Your task to perform on an android device: turn on location history Image 0: 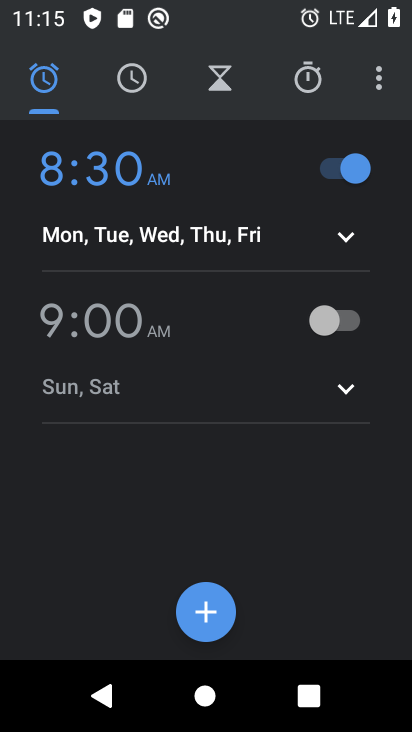
Step 0: press home button
Your task to perform on an android device: turn on location history Image 1: 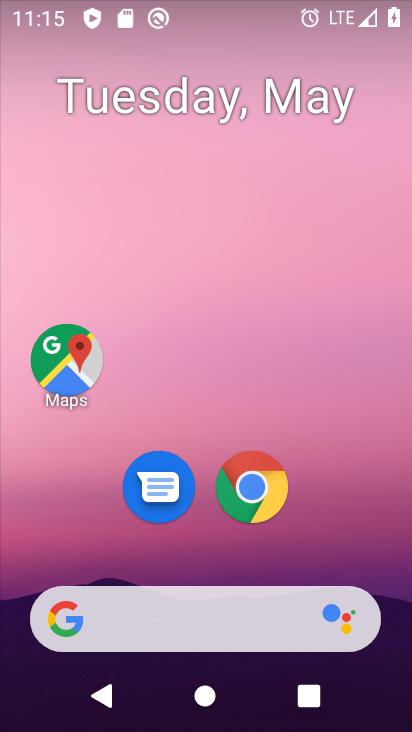
Step 1: drag from (233, 550) to (227, 374)
Your task to perform on an android device: turn on location history Image 2: 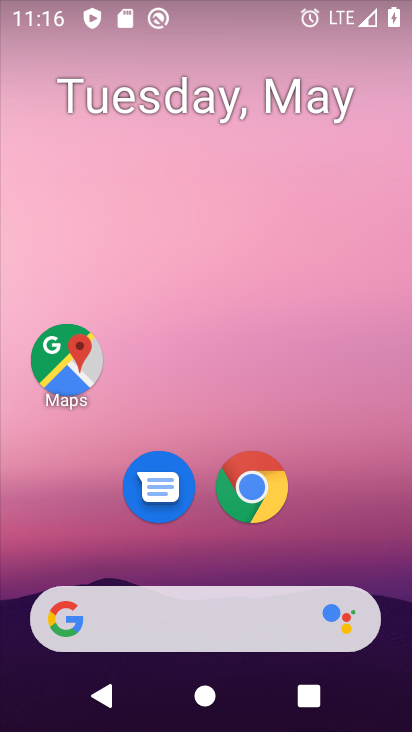
Step 2: drag from (222, 550) to (278, 244)
Your task to perform on an android device: turn on location history Image 3: 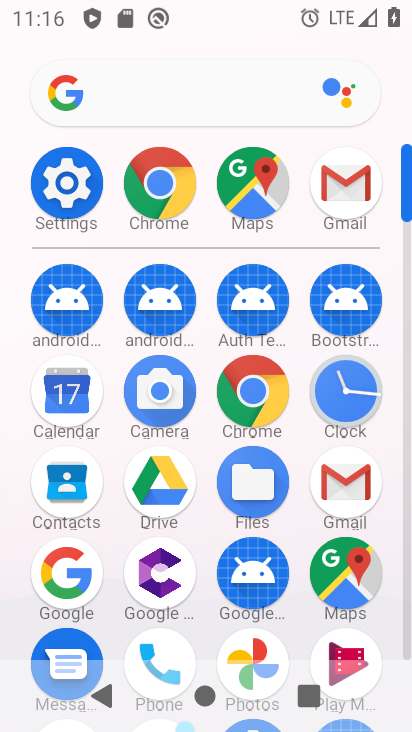
Step 3: click (64, 211)
Your task to perform on an android device: turn on location history Image 4: 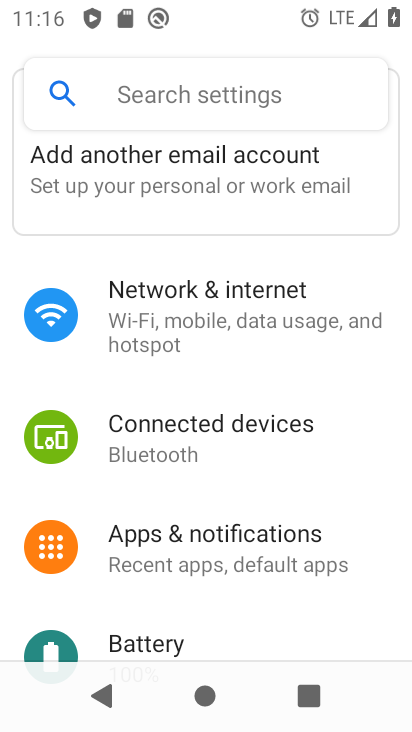
Step 4: drag from (198, 573) to (179, 0)
Your task to perform on an android device: turn on location history Image 5: 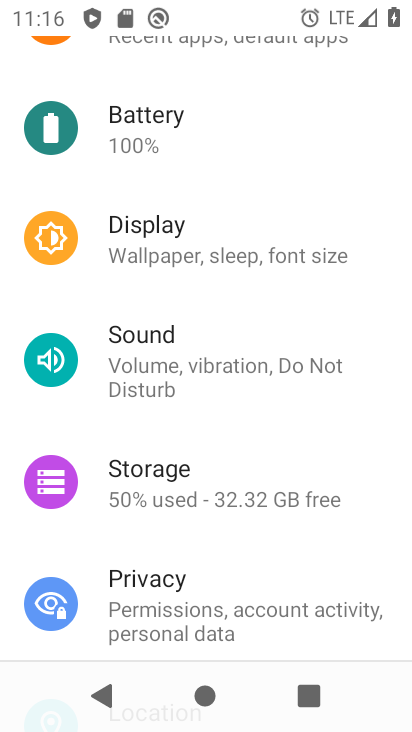
Step 5: drag from (213, 626) to (186, 15)
Your task to perform on an android device: turn on location history Image 6: 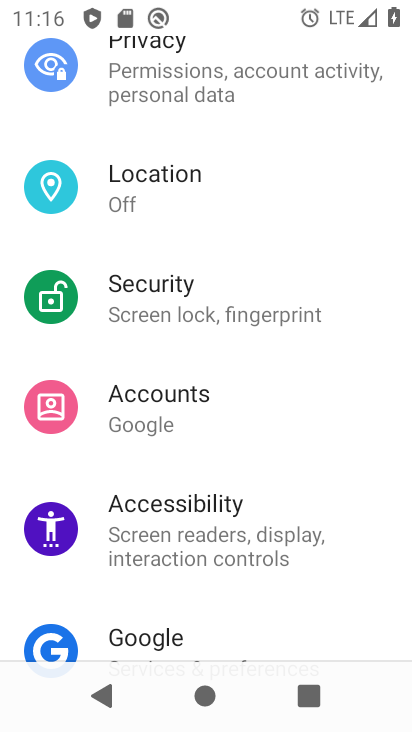
Step 6: click (182, 195)
Your task to perform on an android device: turn on location history Image 7: 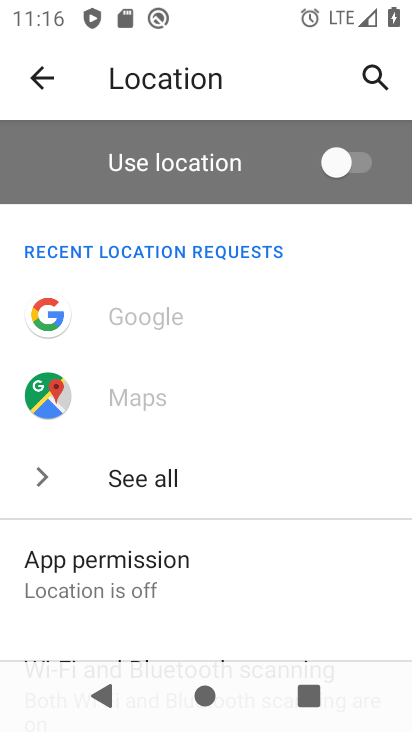
Step 7: drag from (156, 566) to (292, 84)
Your task to perform on an android device: turn on location history Image 8: 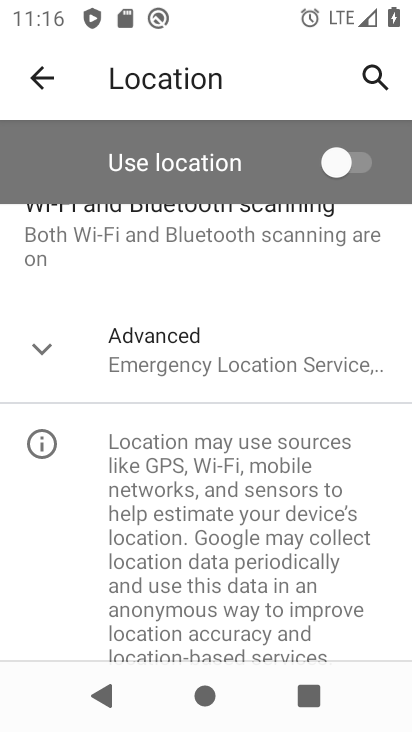
Step 8: click (167, 358)
Your task to perform on an android device: turn on location history Image 9: 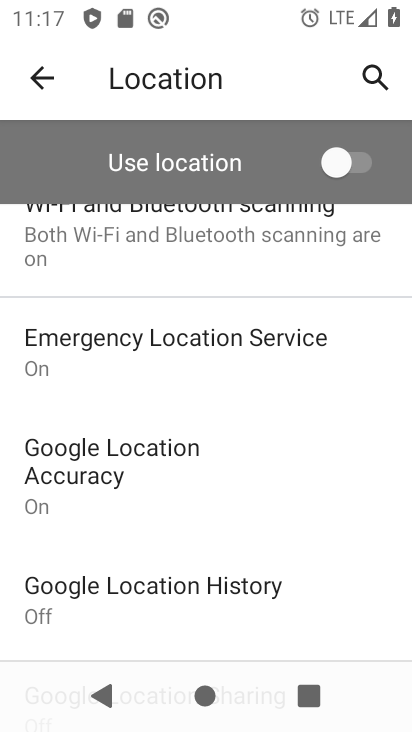
Step 9: click (203, 612)
Your task to perform on an android device: turn on location history Image 10: 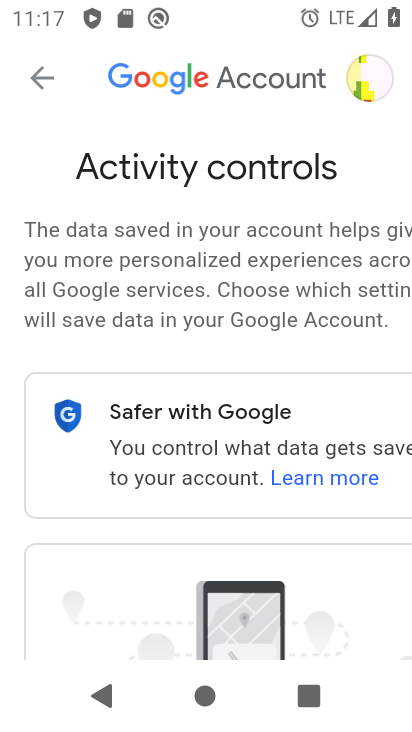
Step 10: drag from (233, 650) to (335, 103)
Your task to perform on an android device: turn on location history Image 11: 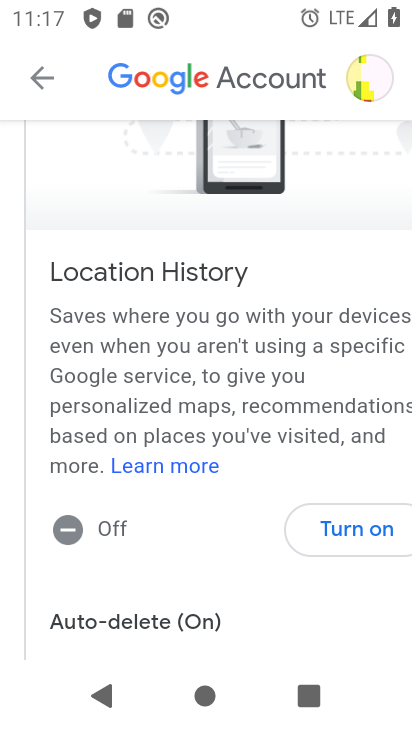
Step 11: click (362, 536)
Your task to perform on an android device: turn on location history Image 12: 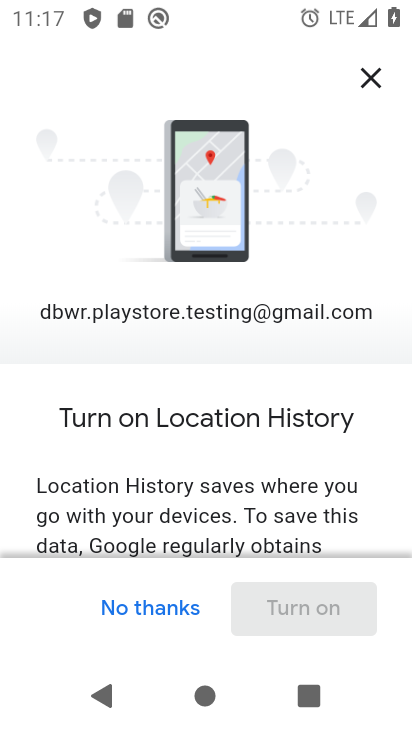
Step 12: drag from (308, 403) to (389, 16)
Your task to perform on an android device: turn on location history Image 13: 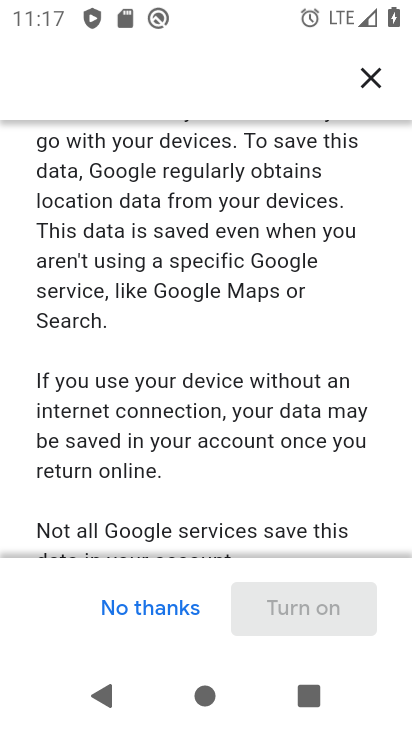
Step 13: drag from (225, 479) to (240, 85)
Your task to perform on an android device: turn on location history Image 14: 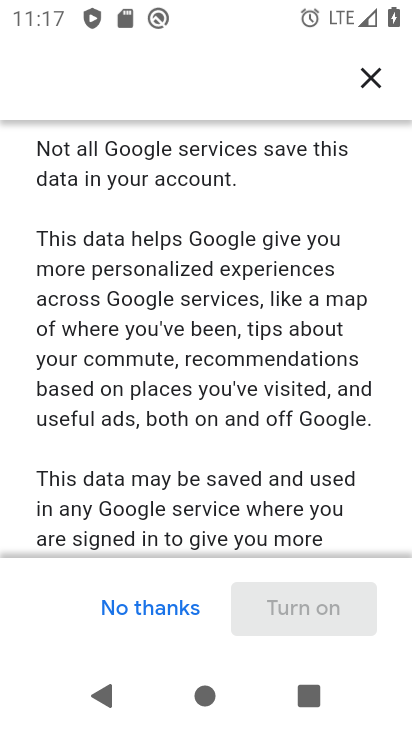
Step 14: drag from (201, 486) to (283, 28)
Your task to perform on an android device: turn on location history Image 15: 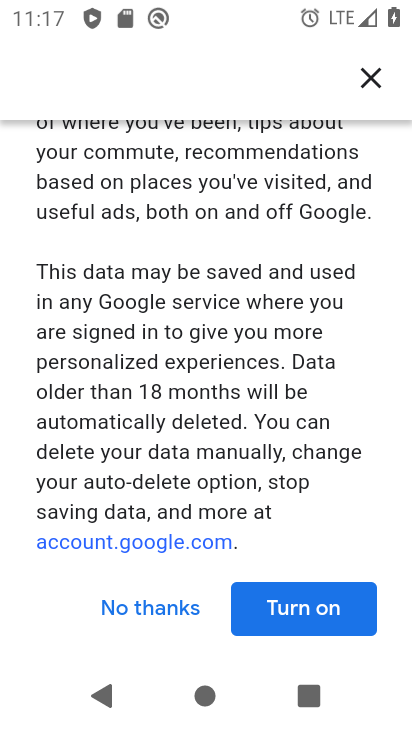
Step 15: click (306, 593)
Your task to perform on an android device: turn on location history Image 16: 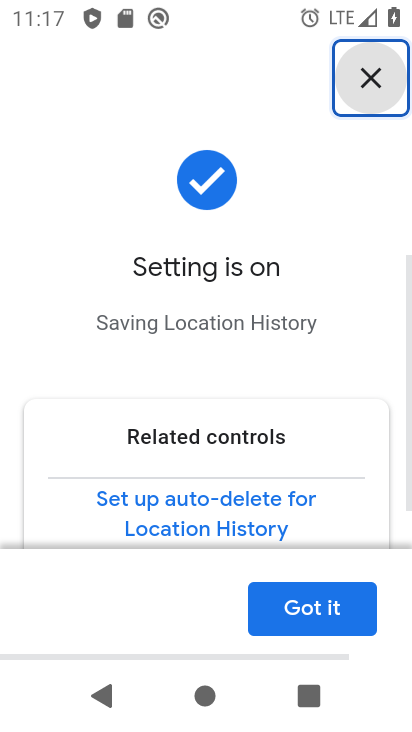
Step 16: drag from (336, 564) to (339, 326)
Your task to perform on an android device: turn on location history Image 17: 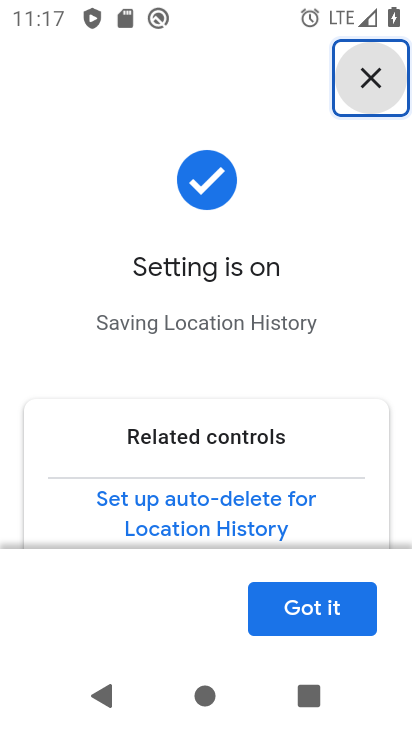
Step 17: click (332, 621)
Your task to perform on an android device: turn on location history Image 18: 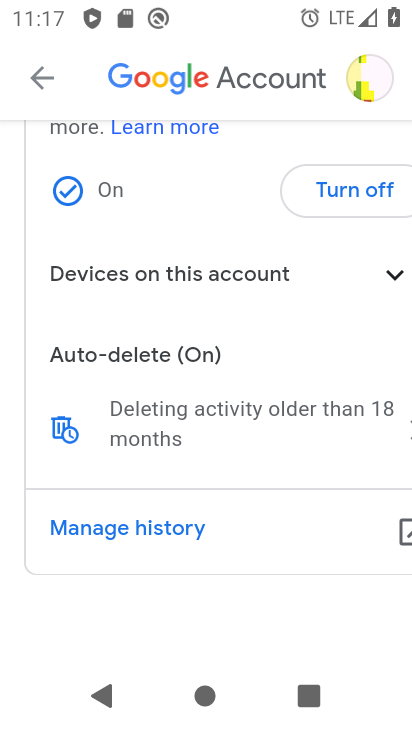
Step 18: task complete